Your task to perform on an android device: find photos in the google photos app Image 0: 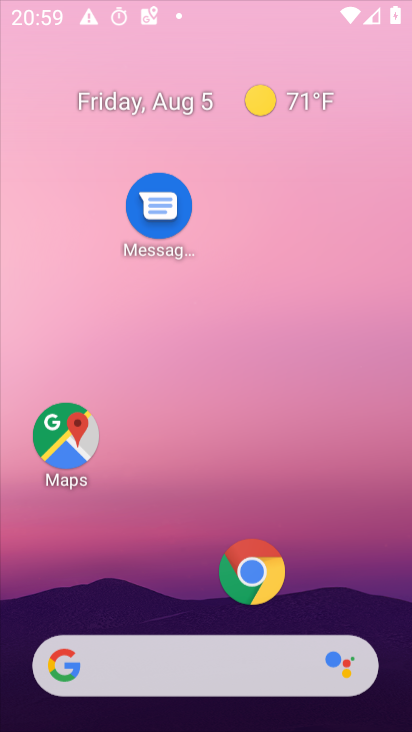
Step 0: press home button
Your task to perform on an android device: find photos in the google photos app Image 1: 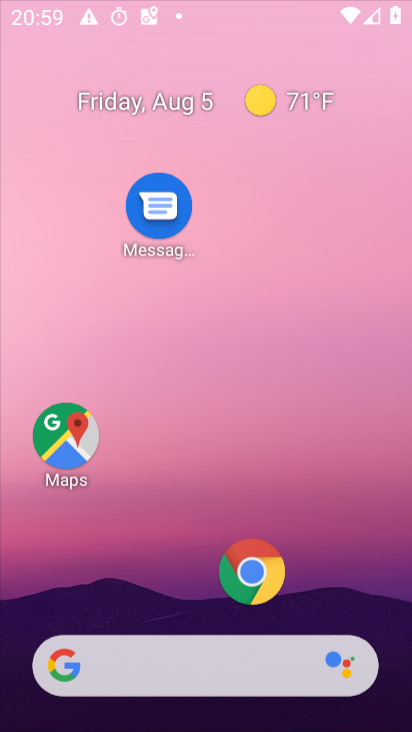
Step 1: drag from (252, 16) to (222, 72)
Your task to perform on an android device: find photos in the google photos app Image 2: 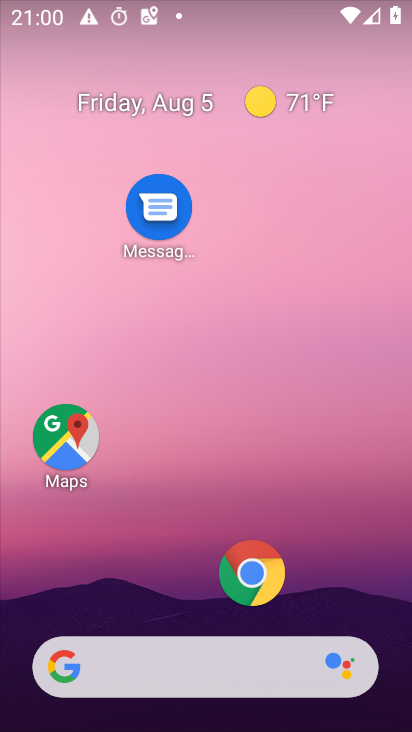
Step 2: drag from (195, 575) to (228, 7)
Your task to perform on an android device: find photos in the google photos app Image 3: 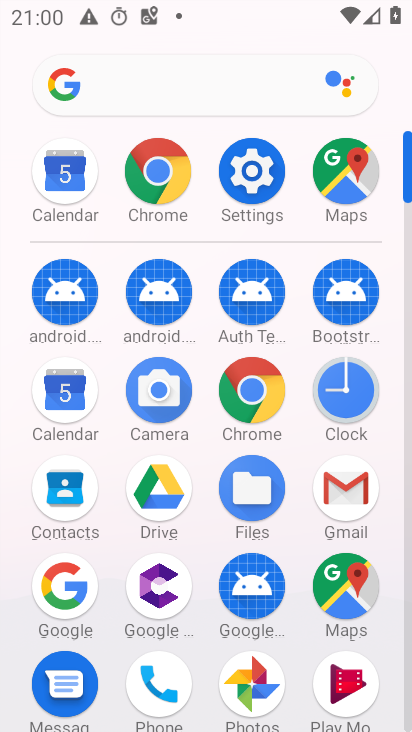
Step 3: click (249, 668)
Your task to perform on an android device: find photos in the google photos app Image 4: 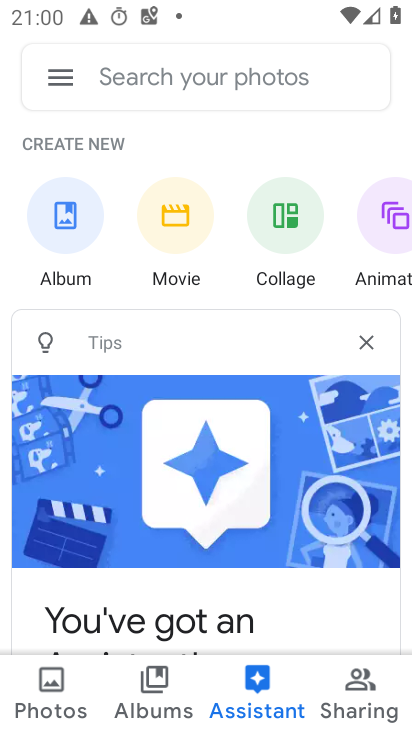
Step 4: click (49, 683)
Your task to perform on an android device: find photos in the google photos app Image 5: 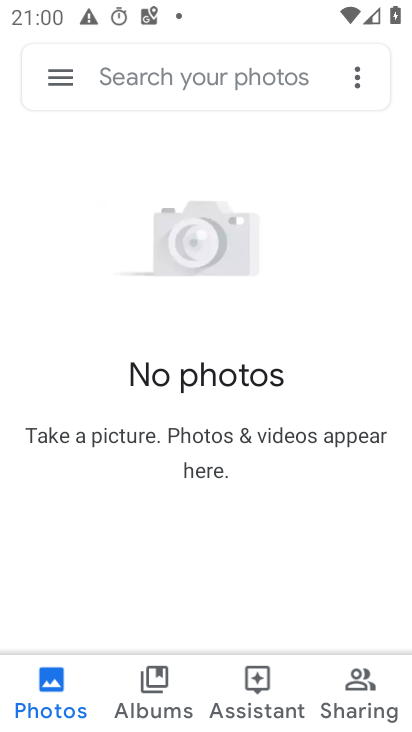
Step 5: task complete